Your task to perform on an android device: Go to eBay Image 0: 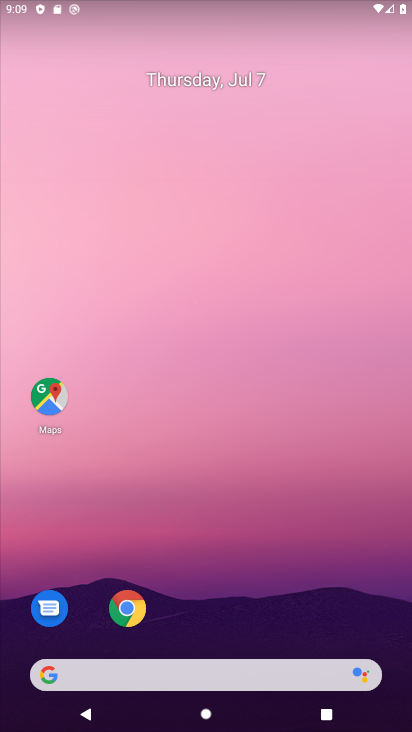
Step 0: drag from (212, 630) to (192, 134)
Your task to perform on an android device: Go to eBay Image 1: 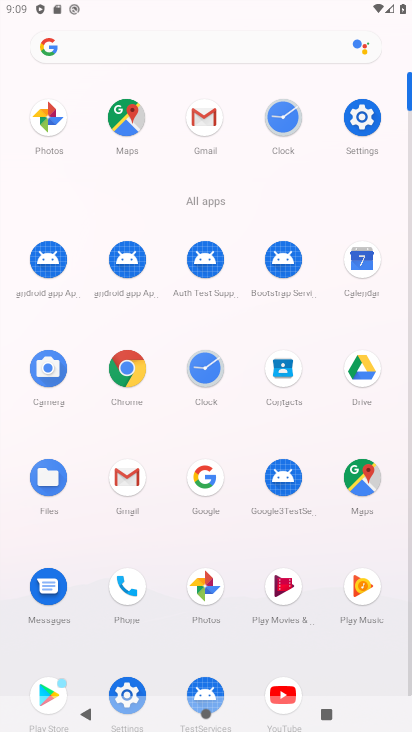
Step 1: click (208, 471)
Your task to perform on an android device: Go to eBay Image 2: 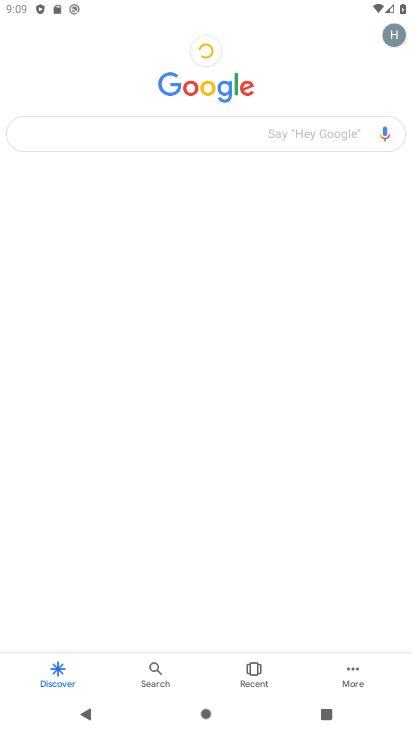
Step 2: click (181, 129)
Your task to perform on an android device: Go to eBay Image 3: 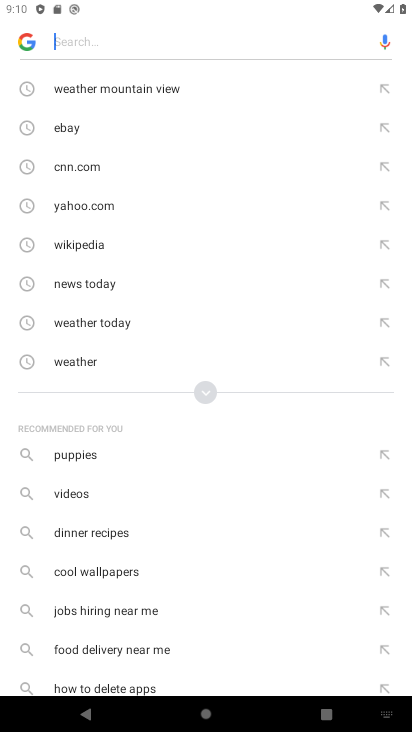
Step 3: type "ebay"
Your task to perform on an android device: Go to eBay Image 4: 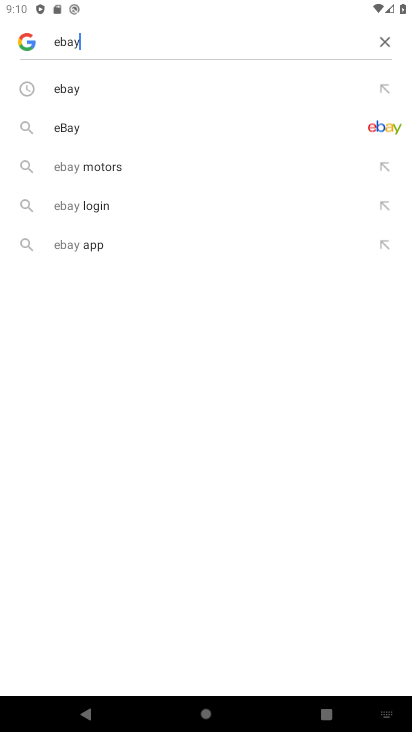
Step 4: click (224, 121)
Your task to perform on an android device: Go to eBay Image 5: 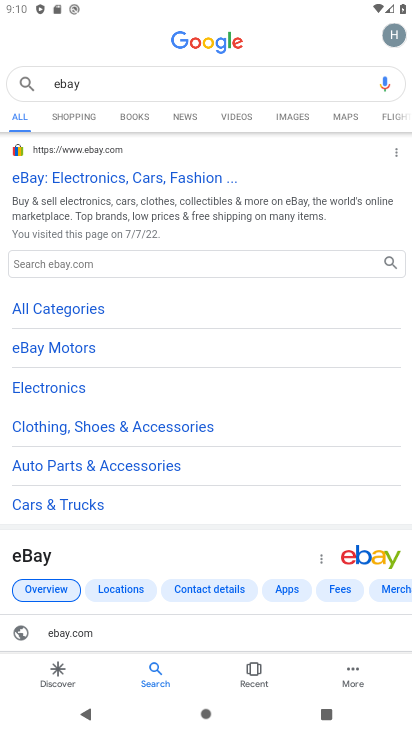
Step 5: click (121, 179)
Your task to perform on an android device: Go to eBay Image 6: 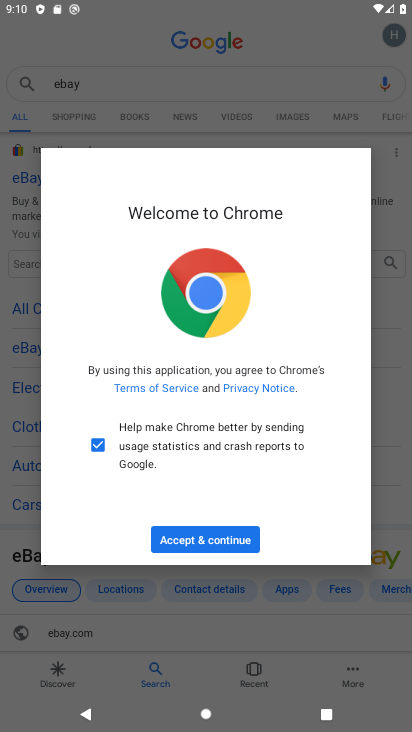
Step 6: click (232, 535)
Your task to perform on an android device: Go to eBay Image 7: 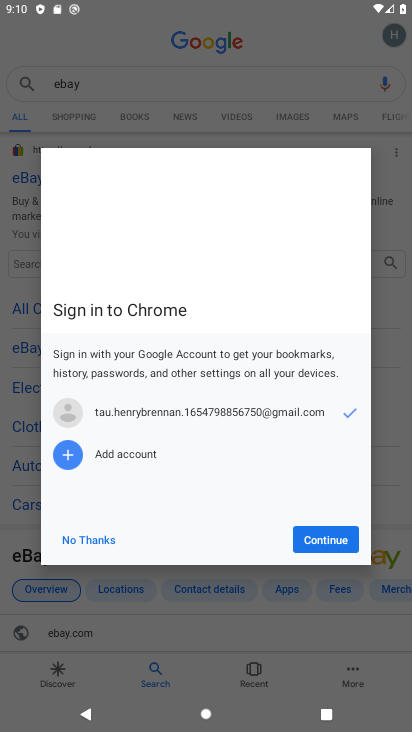
Step 7: click (339, 533)
Your task to perform on an android device: Go to eBay Image 8: 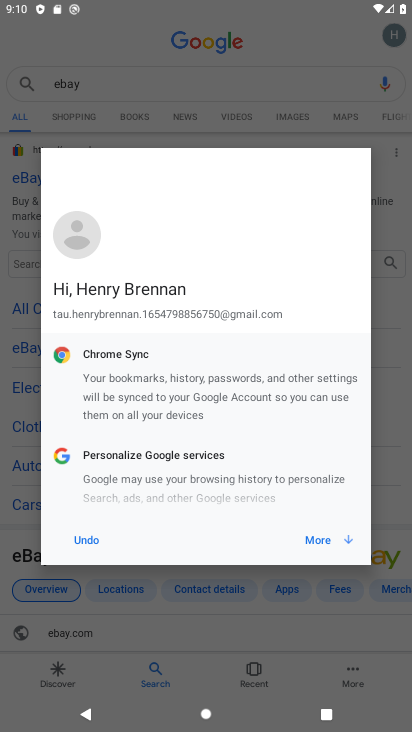
Step 8: click (332, 541)
Your task to perform on an android device: Go to eBay Image 9: 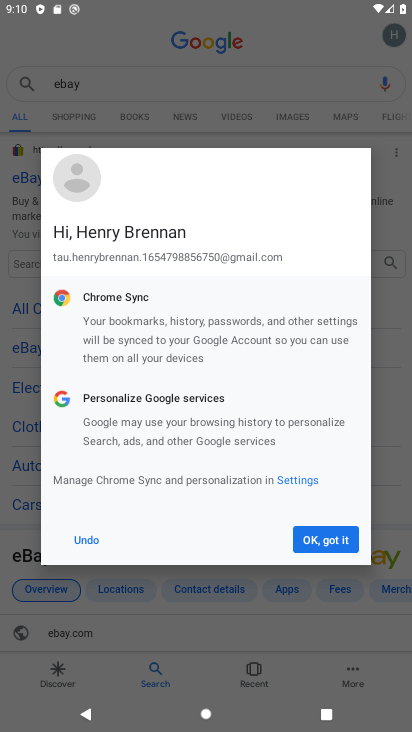
Step 9: click (332, 541)
Your task to perform on an android device: Go to eBay Image 10: 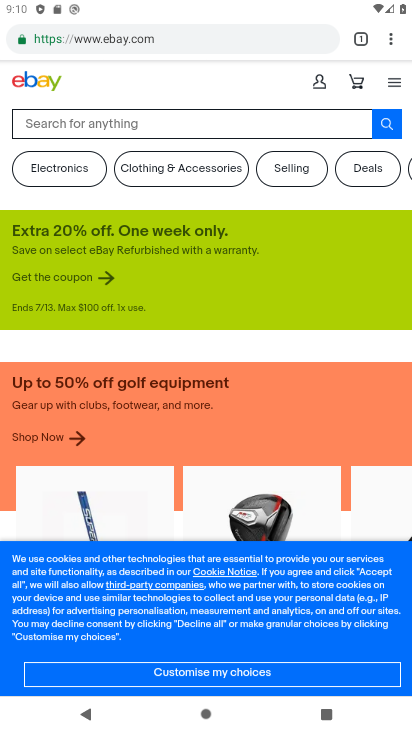
Step 10: task complete